Your task to perform on an android device: Open ESPN.com Image 0: 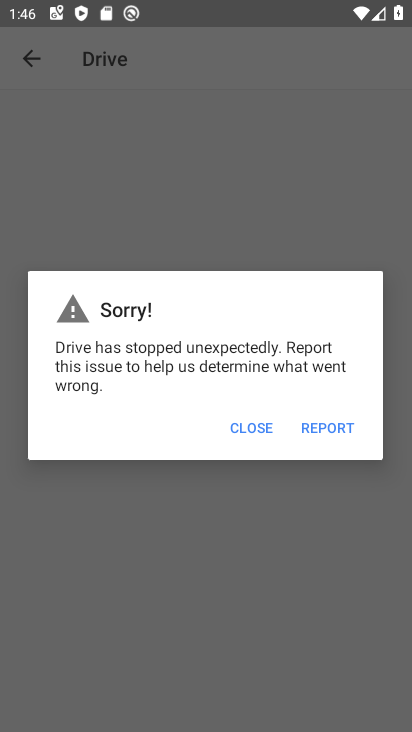
Step 0: press home button
Your task to perform on an android device: Open ESPN.com Image 1: 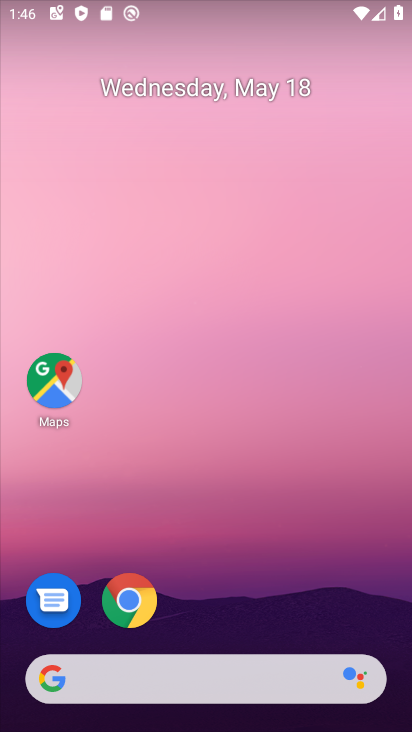
Step 1: click (128, 600)
Your task to perform on an android device: Open ESPN.com Image 2: 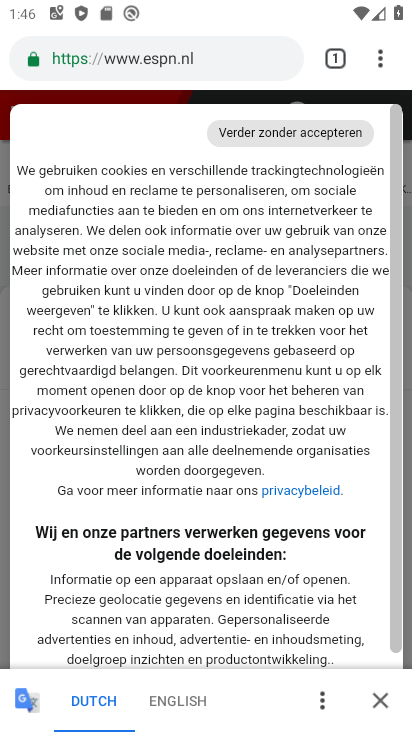
Step 2: click (207, 66)
Your task to perform on an android device: Open ESPN.com Image 3: 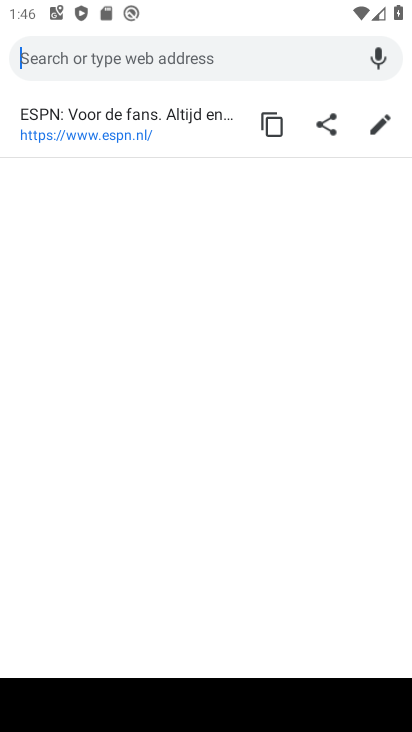
Step 3: type "ESPN.com"
Your task to perform on an android device: Open ESPN.com Image 4: 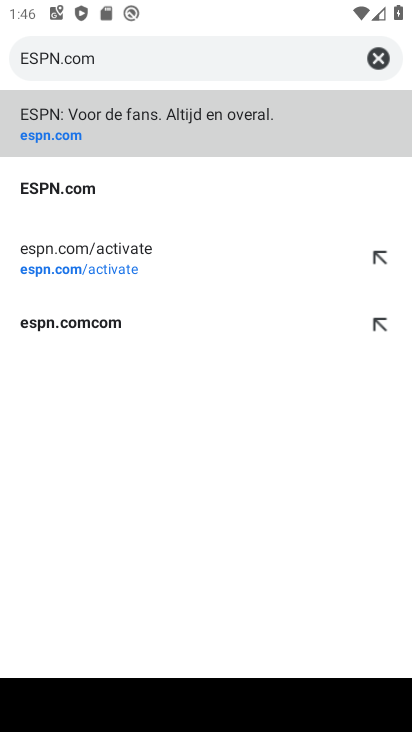
Step 4: click (72, 178)
Your task to perform on an android device: Open ESPN.com Image 5: 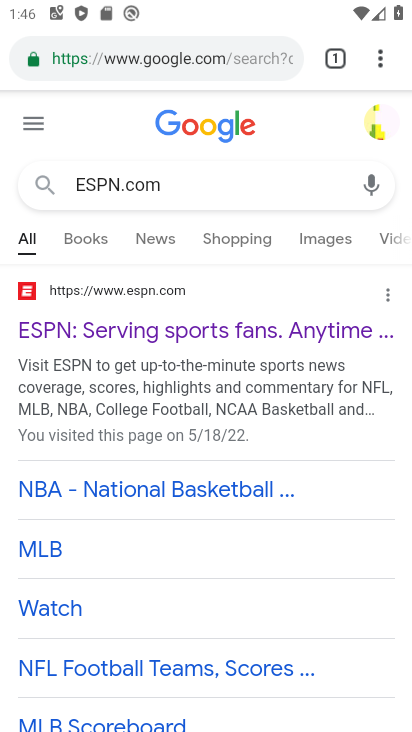
Step 5: click (101, 337)
Your task to perform on an android device: Open ESPN.com Image 6: 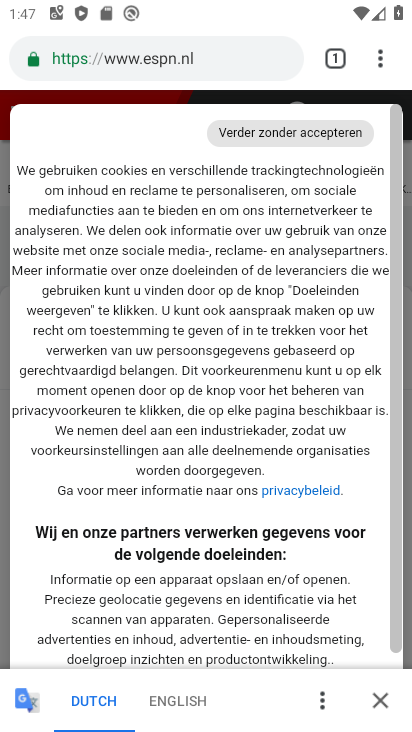
Step 6: task complete